Your task to perform on an android device: Open wifi settings Image 0: 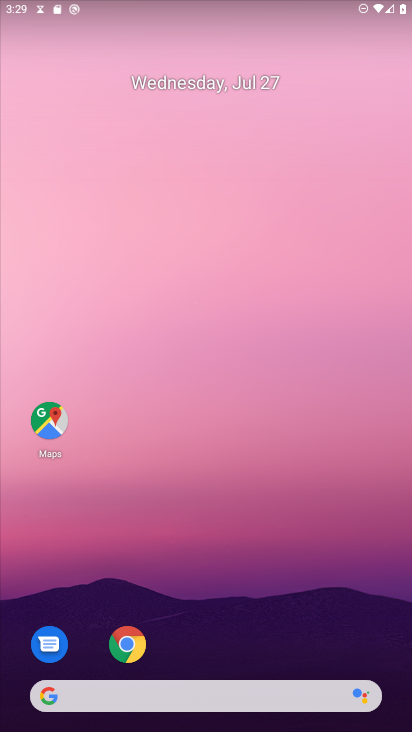
Step 0: drag from (233, 632) to (246, 147)
Your task to perform on an android device: Open wifi settings Image 1: 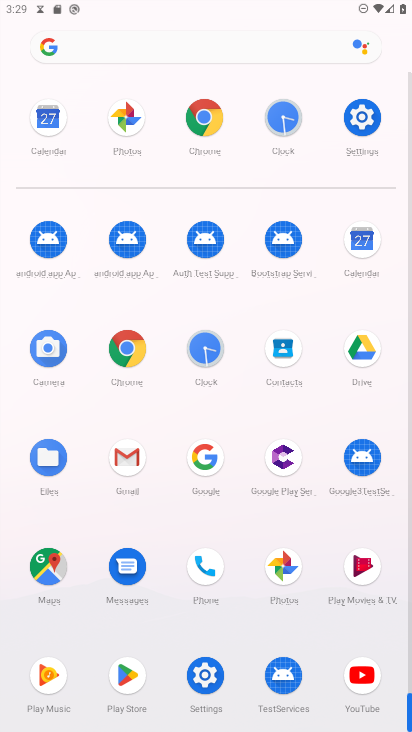
Step 1: click (207, 676)
Your task to perform on an android device: Open wifi settings Image 2: 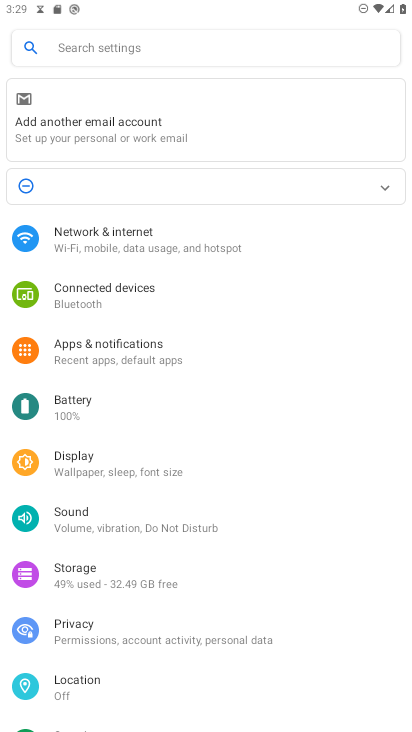
Step 2: click (124, 243)
Your task to perform on an android device: Open wifi settings Image 3: 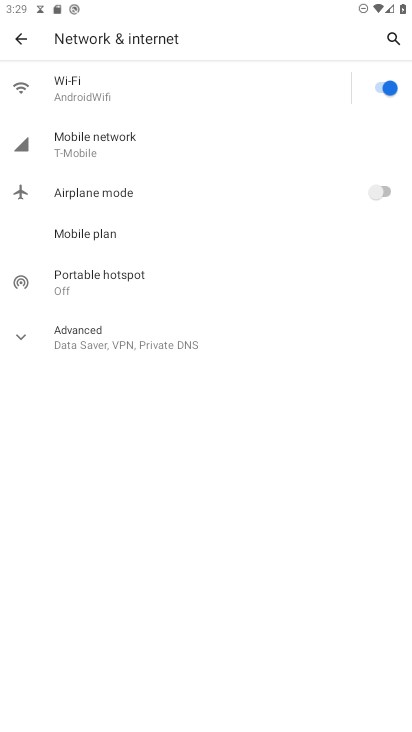
Step 3: click (86, 79)
Your task to perform on an android device: Open wifi settings Image 4: 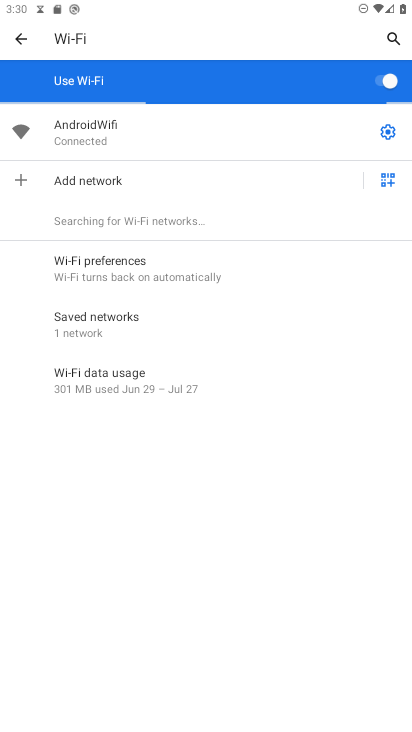
Step 4: task complete